Your task to perform on an android device: add a label to a message in the gmail app Image 0: 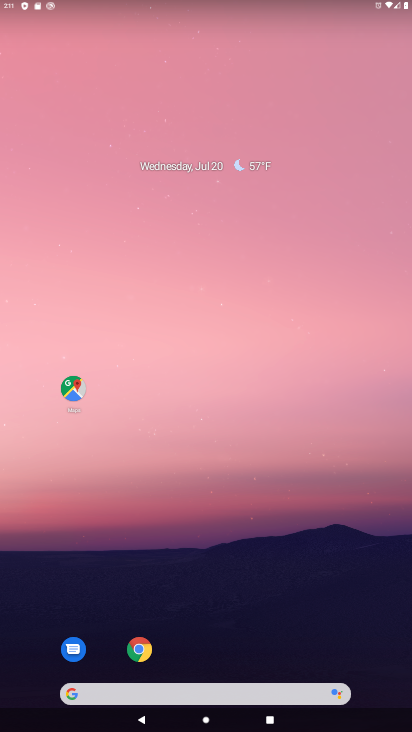
Step 0: drag from (206, 663) to (225, 231)
Your task to perform on an android device: add a label to a message in the gmail app Image 1: 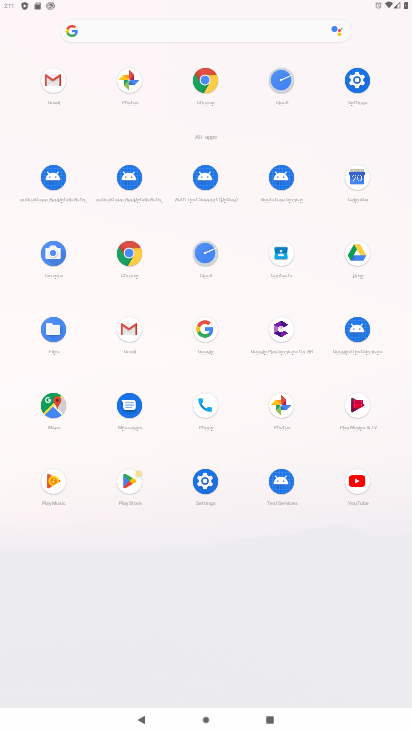
Step 1: click (121, 326)
Your task to perform on an android device: add a label to a message in the gmail app Image 2: 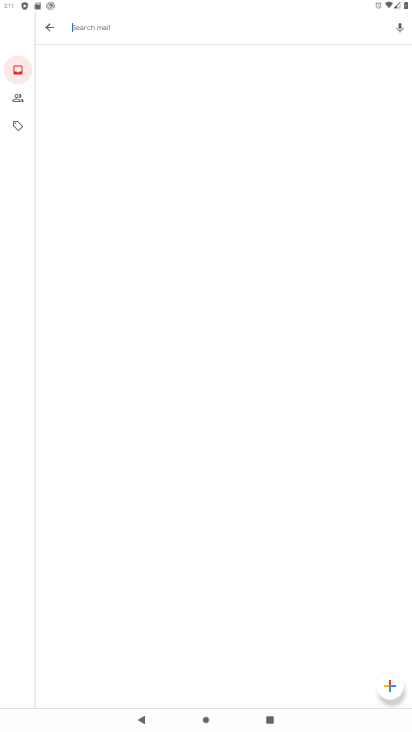
Step 2: task complete